Your task to perform on an android device: create a new album in the google photos Image 0: 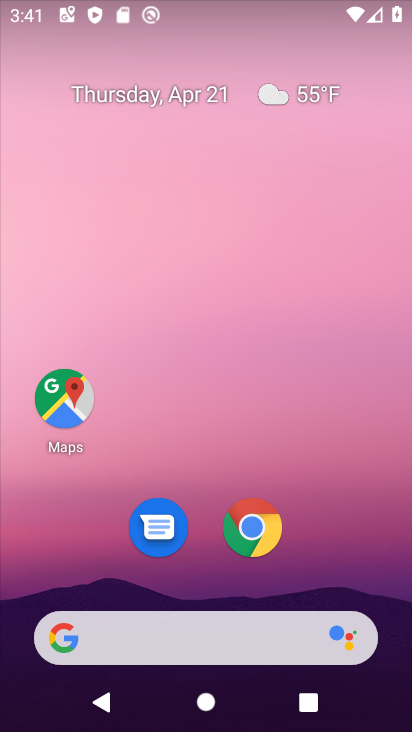
Step 0: drag from (378, 563) to (330, 86)
Your task to perform on an android device: create a new album in the google photos Image 1: 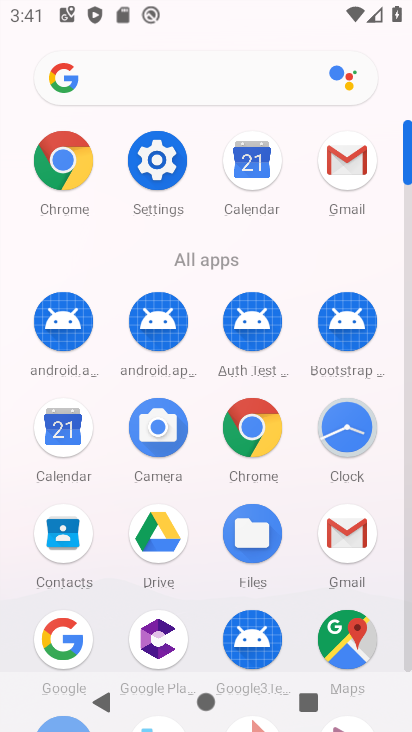
Step 1: click (404, 662)
Your task to perform on an android device: create a new album in the google photos Image 2: 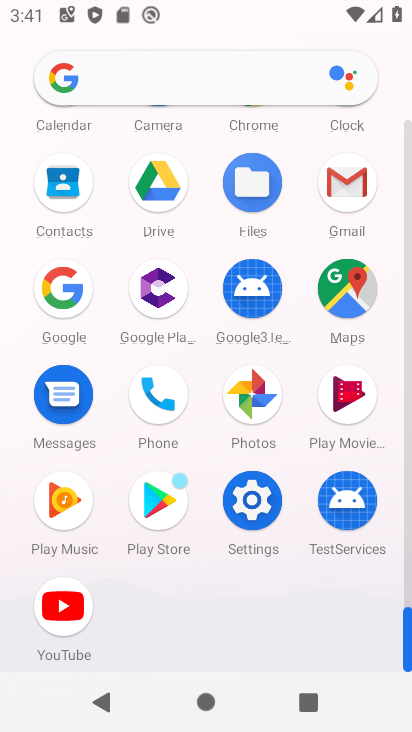
Step 2: click (243, 393)
Your task to perform on an android device: create a new album in the google photos Image 3: 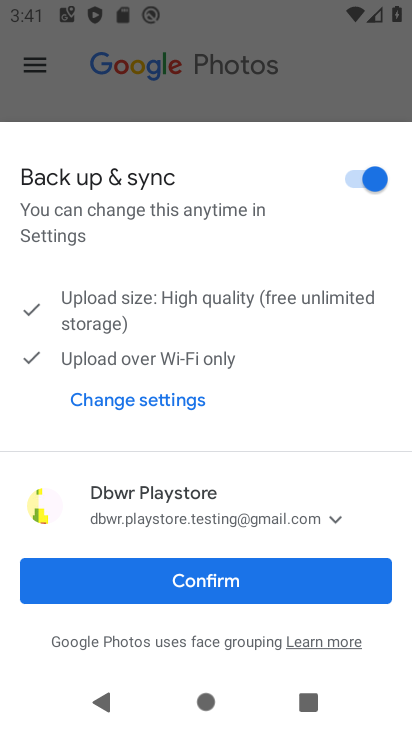
Step 3: click (246, 582)
Your task to perform on an android device: create a new album in the google photos Image 4: 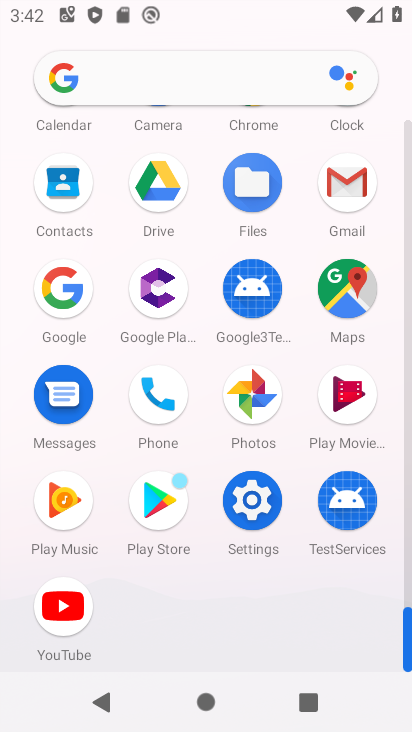
Step 4: click (266, 399)
Your task to perform on an android device: create a new album in the google photos Image 5: 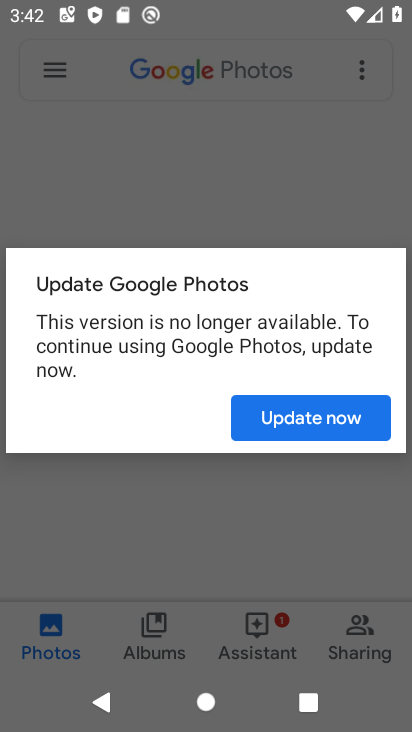
Step 5: click (320, 417)
Your task to perform on an android device: create a new album in the google photos Image 6: 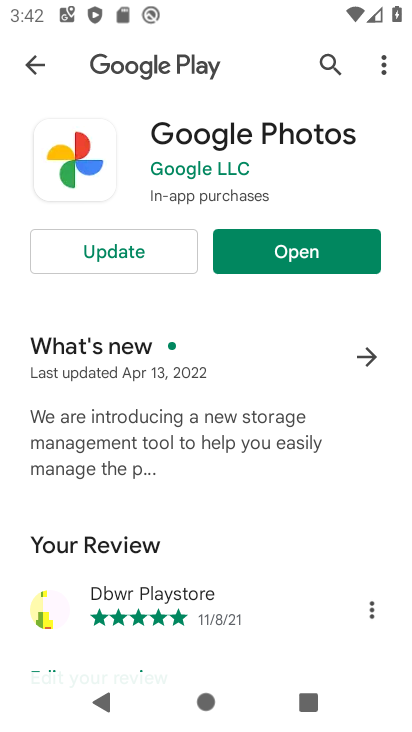
Step 6: click (118, 252)
Your task to perform on an android device: create a new album in the google photos Image 7: 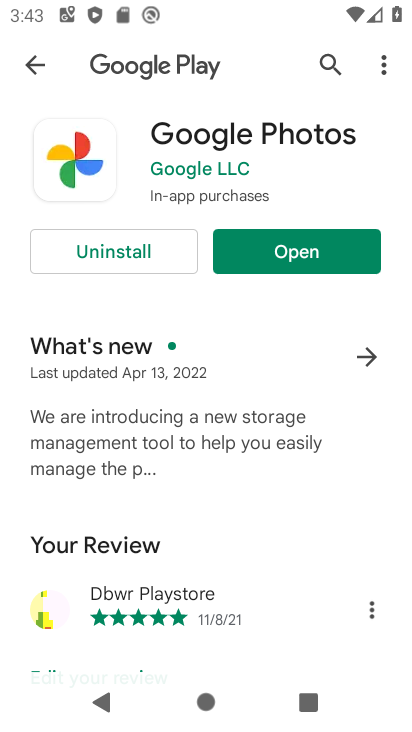
Step 7: click (284, 249)
Your task to perform on an android device: create a new album in the google photos Image 8: 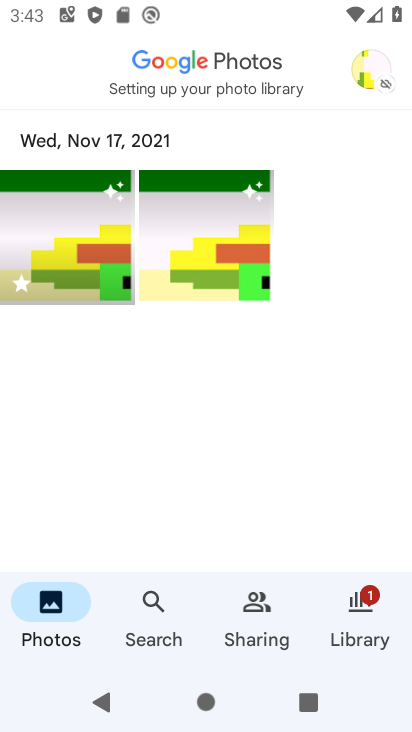
Step 8: click (369, 603)
Your task to perform on an android device: create a new album in the google photos Image 9: 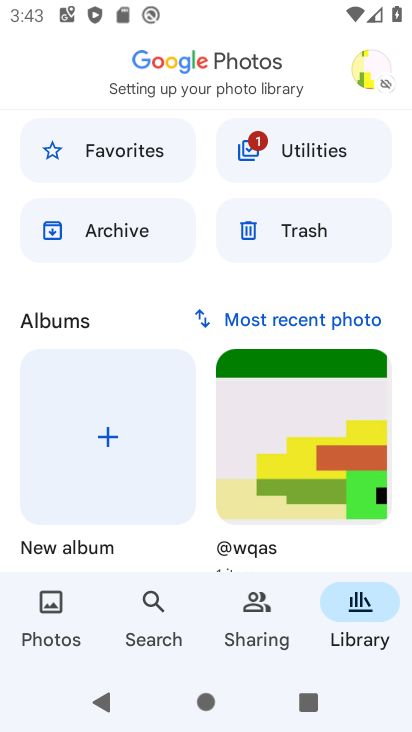
Step 9: click (143, 439)
Your task to perform on an android device: create a new album in the google photos Image 10: 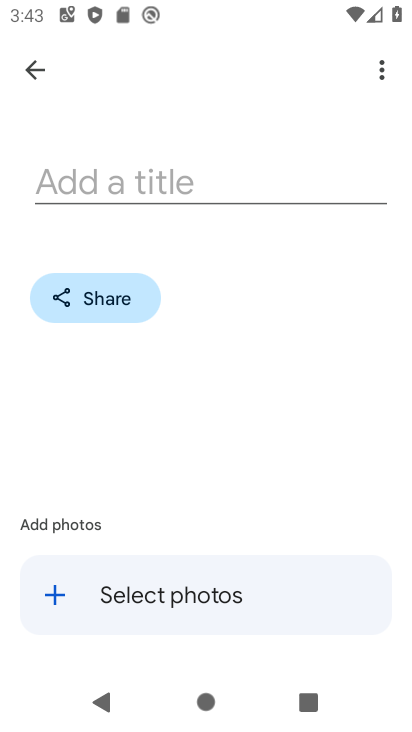
Step 10: click (159, 180)
Your task to perform on an android device: create a new album in the google photos Image 11: 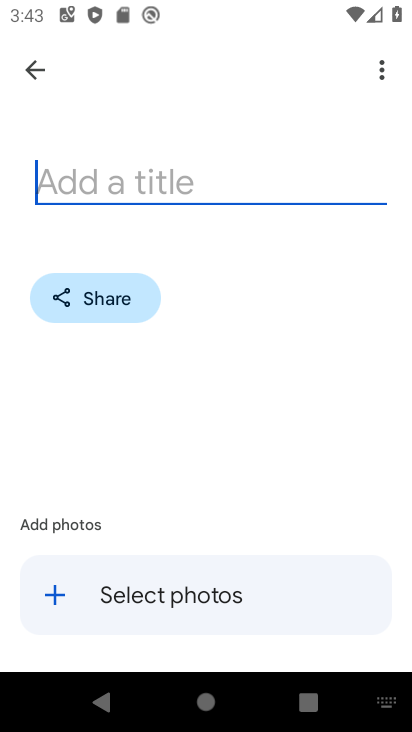
Step 11: type "hjkhkjh"
Your task to perform on an android device: create a new album in the google photos Image 12: 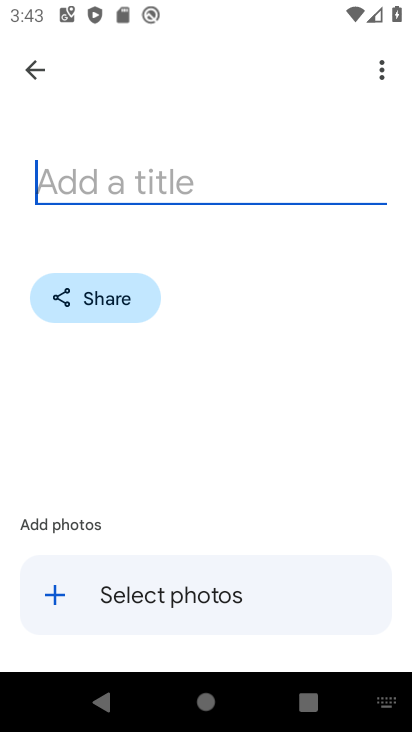
Step 12: click (249, 577)
Your task to perform on an android device: create a new album in the google photos Image 13: 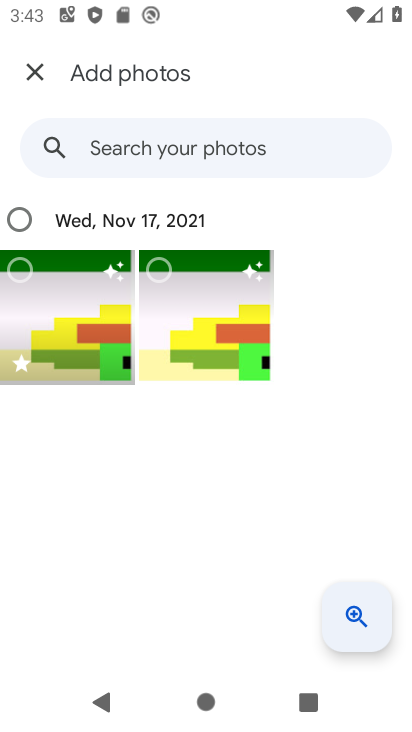
Step 13: click (220, 339)
Your task to perform on an android device: create a new album in the google photos Image 14: 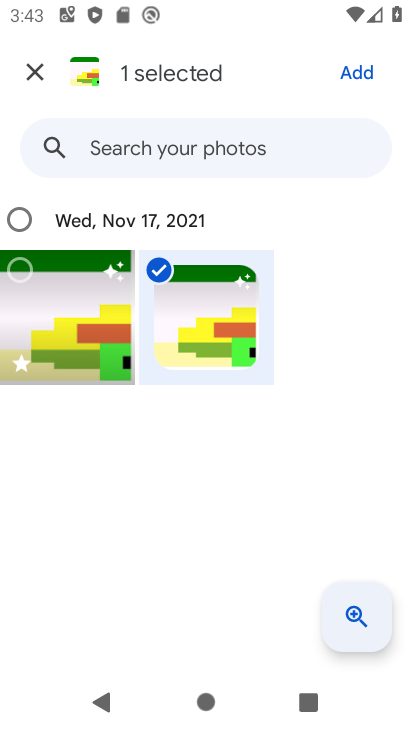
Step 14: click (57, 313)
Your task to perform on an android device: create a new album in the google photos Image 15: 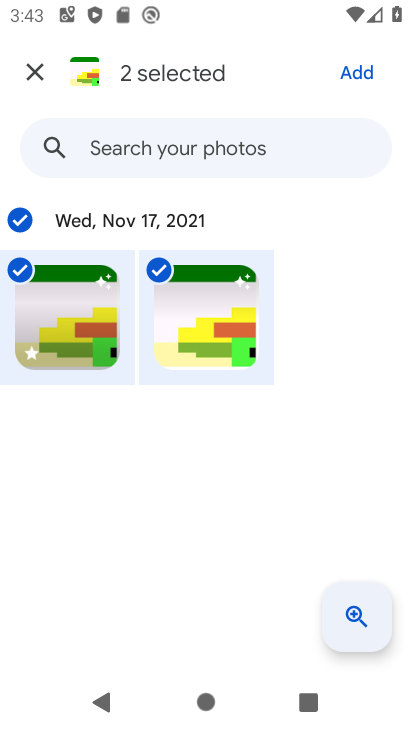
Step 15: click (365, 73)
Your task to perform on an android device: create a new album in the google photos Image 16: 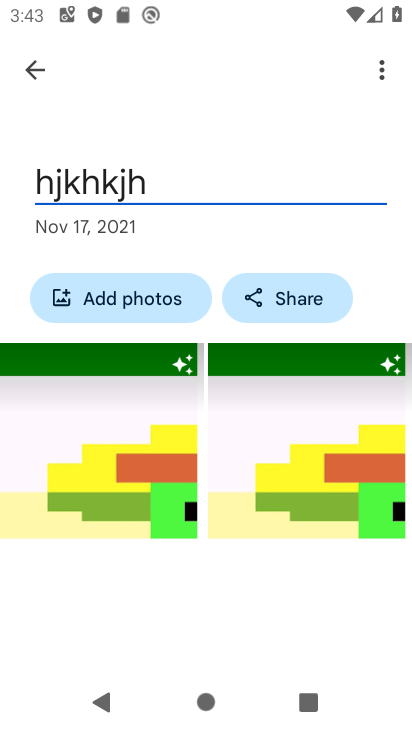
Step 16: task complete